Your task to perform on an android device: Go to notification settings Image 0: 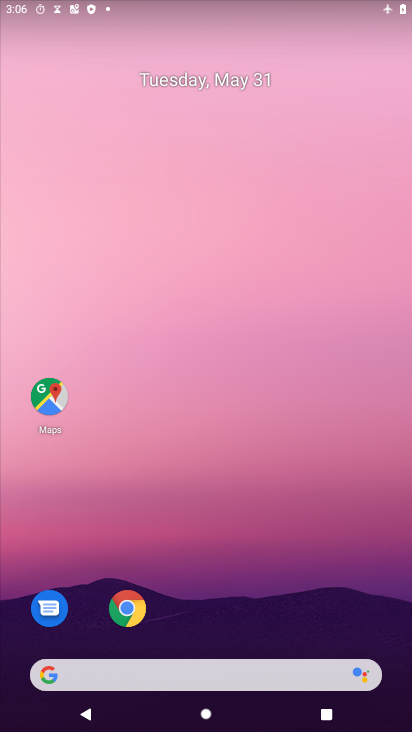
Step 0: drag from (227, 602) to (318, 141)
Your task to perform on an android device: Go to notification settings Image 1: 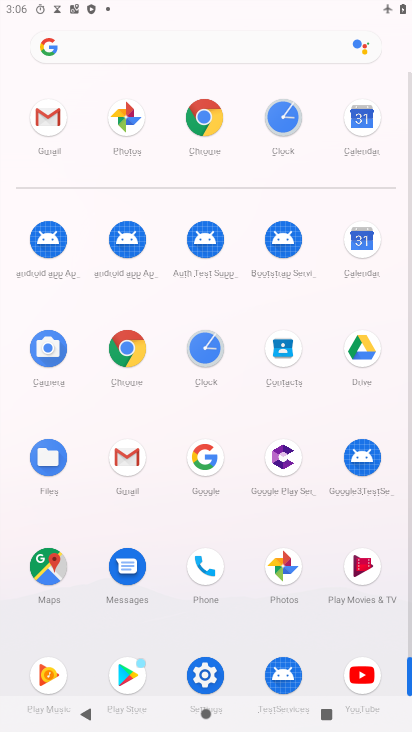
Step 1: click (202, 663)
Your task to perform on an android device: Go to notification settings Image 2: 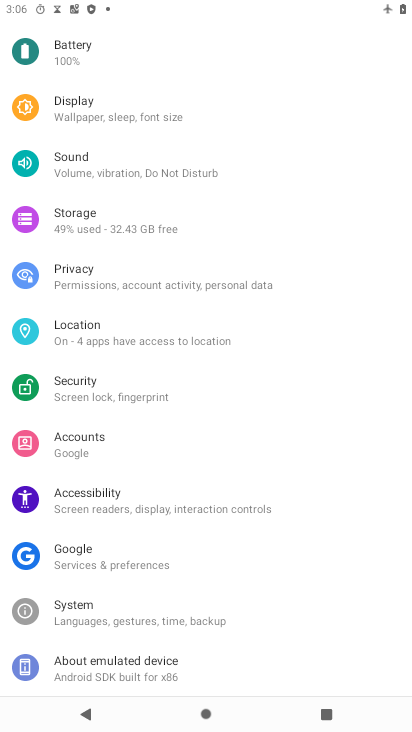
Step 2: drag from (192, 253) to (173, 478)
Your task to perform on an android device: Go to notification settings Image 3: 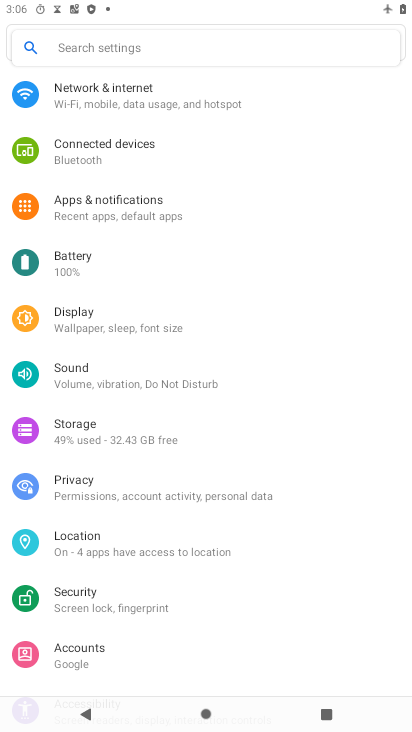
Step 3: click (145, 221)
Your task to perform on an android device: Go to notification settings Image 4: 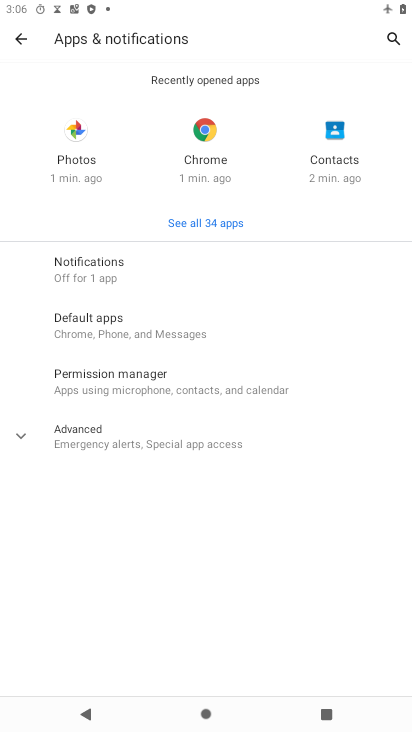
Step 4: click (112, 270)
Your task to perform on an android device: Go to notification settings Image 5: 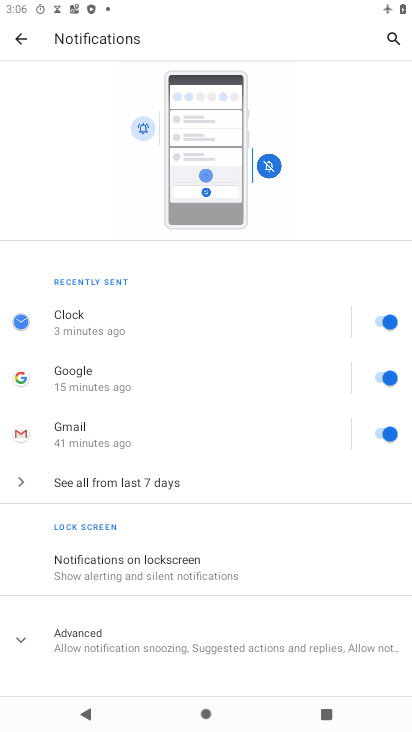
Step 5: task complete